Your task to perform on an android device: choose inbox layout in the gmail app Image 0: 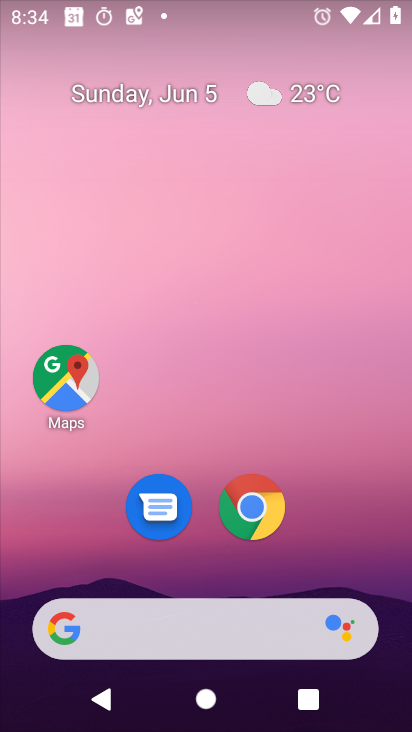
Step 0: drag from (280, 646) to (202, 131)
Your task to perform on an android device: choose inbox layout in the gmail app Image 1: 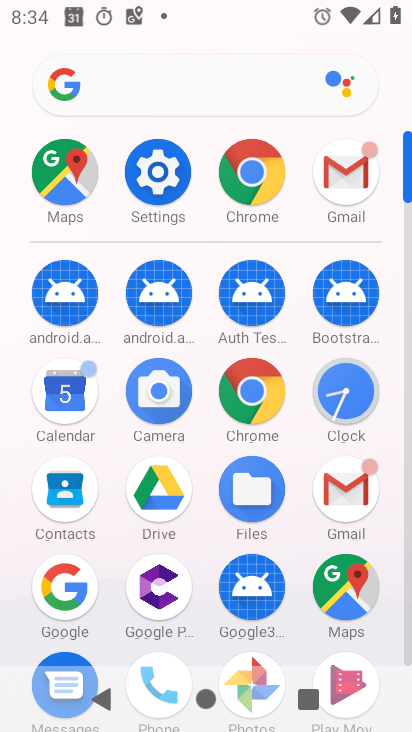
Step 1: click (328, 204)
Your task to perform on an android device: choose inbox layout in the gmail app Image 2: 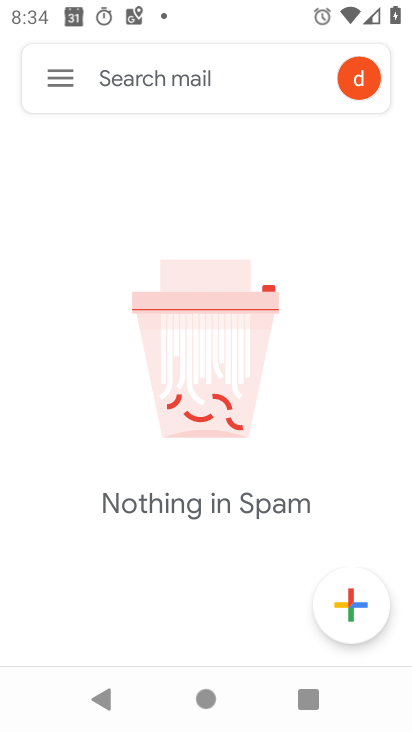
Step 2: click (75, 78)
Your task to perform on an android device: choose inbox layout in the gmail app Image 3: 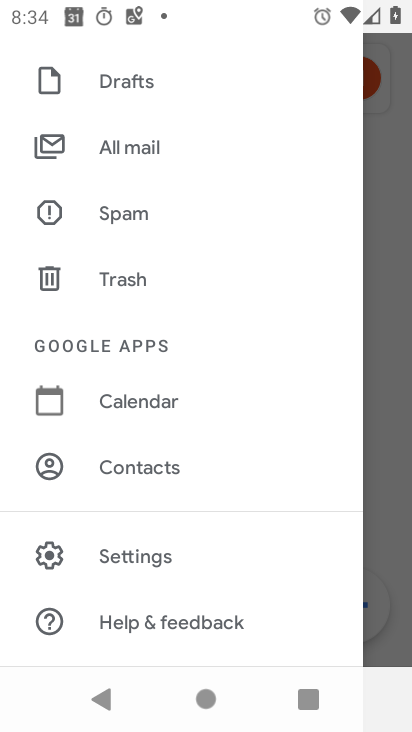
Step 3: click (140, 558)
Your task to perform on an android device: choose inbox layout in the gmail app Image 4: 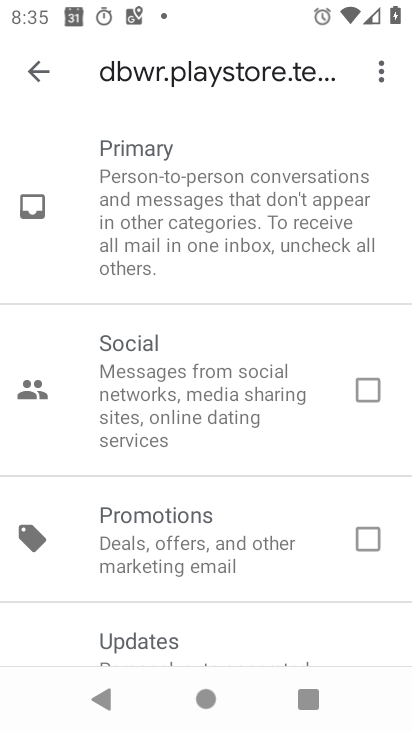
Step 4: click (30, 73)
Your task to perform on an android device: choose inbox layout in the gmail app Image 5: 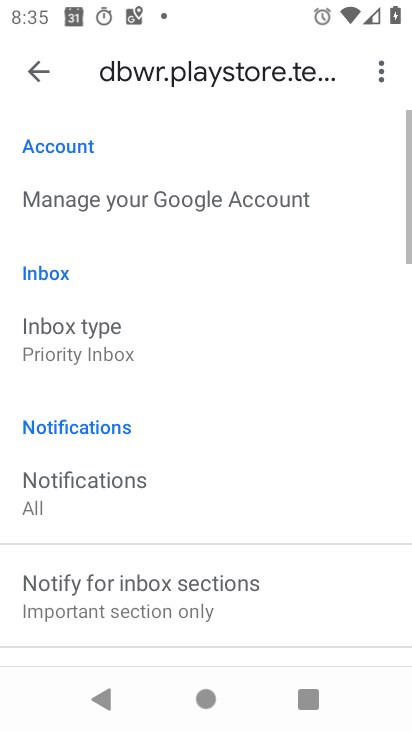
Step 5: task complete